Your task to perform on an android device: Search for "razer thresher" on costco, select the first entry, add it to the cart, then select checkout. Image 0: 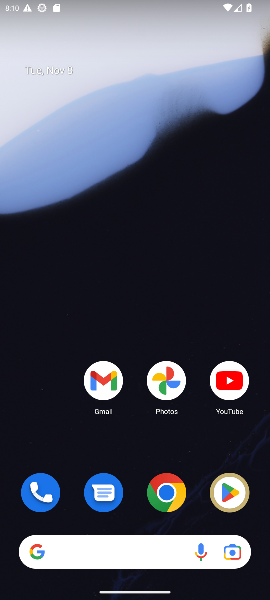
Step 0: click (206, 420)
Your task to perform on an android device: Search for "razer thresher" on costco, select the first entry, add it to the cart, then select checkout. Image 1: 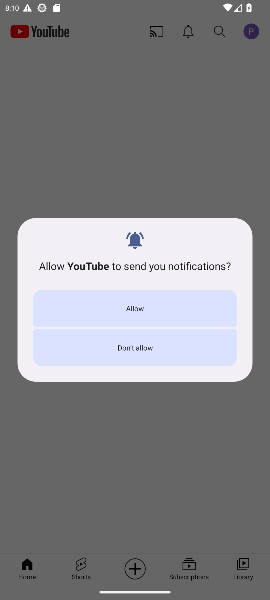
Step 1: press home button
Your task to perform on an android device: Search for "razer thresher" on costco, select the first entry, add it to the cart, then select checkout. Image 2: 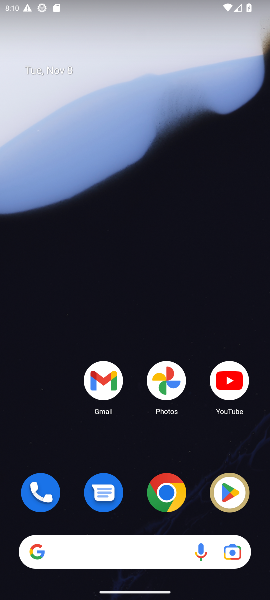
Step 2: click (173, 495)
Your task to perform on an android device: Search for "razer thresher" on costco, select the first entry, add it to the cart, then select checkout. Image 3: 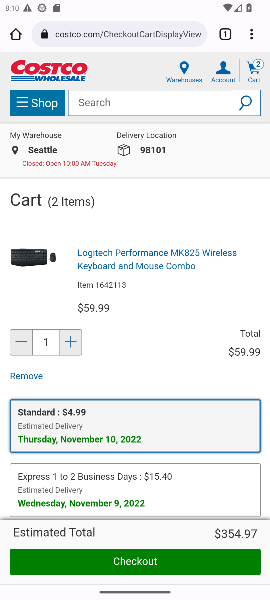
Step 3: click (94, 31)
Your task to perform on an android device: Search for "razer thresher" on costco, select the first entry, add it to the cart, then select checkout. Image 4: 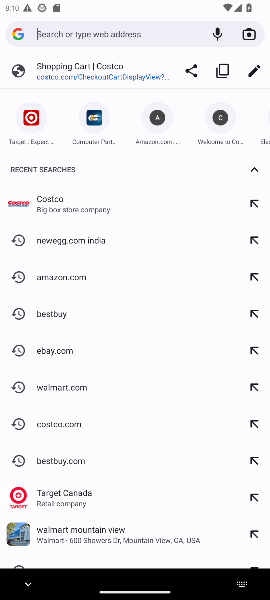
Step 4: type "costco"
Your task to perform on an android device: Search for "razer thresher" on costco, select the first entry, add it to the cart, then select checkout. Image 5: 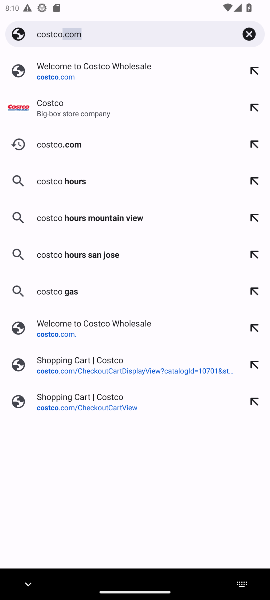
Step 5: press enter
Your task to perform on an android device: Search for "razer thresher" on costco, select the first entry, add it to the cart, then select checkout. Image 6: 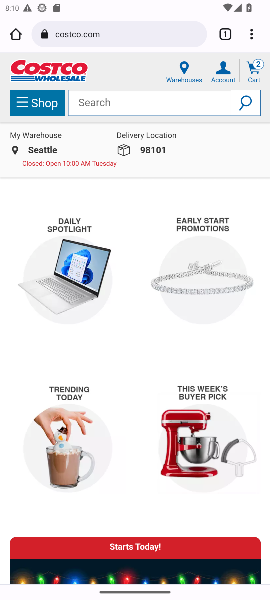
Step 6: click (112, 99)
Your task to perform on an android device: Search for "razer thresher" on costco, select the first entry, add it to the cart, then select checkout. Image 7: 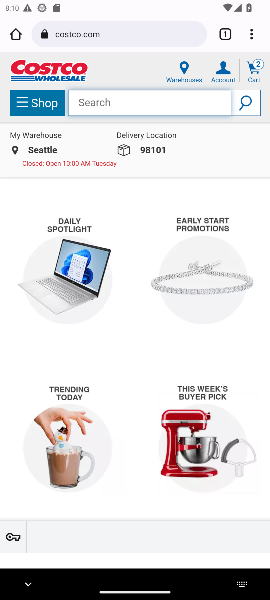
Step 7: type "razer thresher"
Your task to perform on an android device: Search for "razer thresher" on costco, select the first entry, add it to the cart, then select checkout. Image 8: 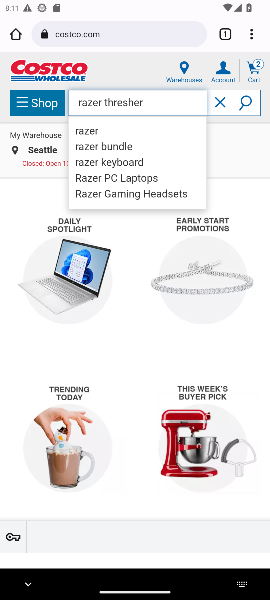
Step 8: press enter
Your task to perform on an android device: Search for "razer thresher" on costco, select the first entry, add it to the cart, then select checkout. Image 9: 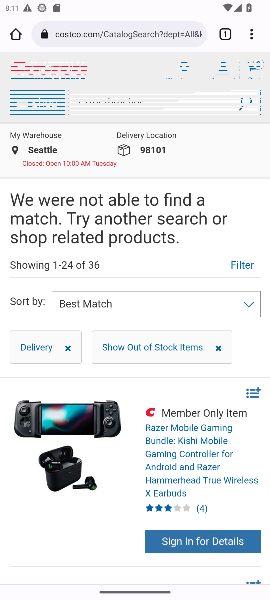
Step 9: task complete